Your task to perform on an android device: open chrome privacy settings Image 0: 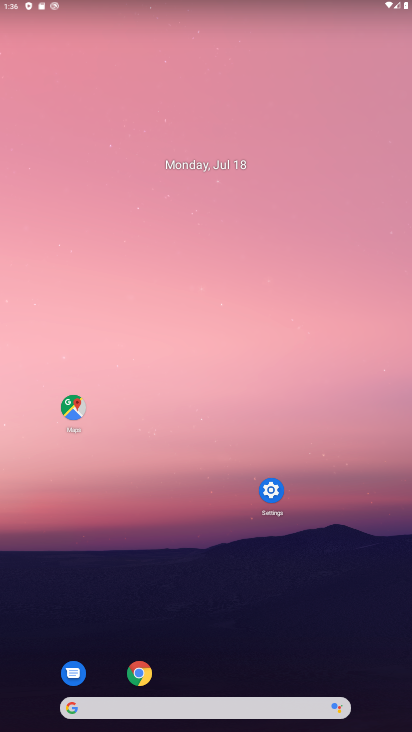
Step 0: click (276, 508)
Your task to perform on an android device: open chrome privacy settings Image 1: 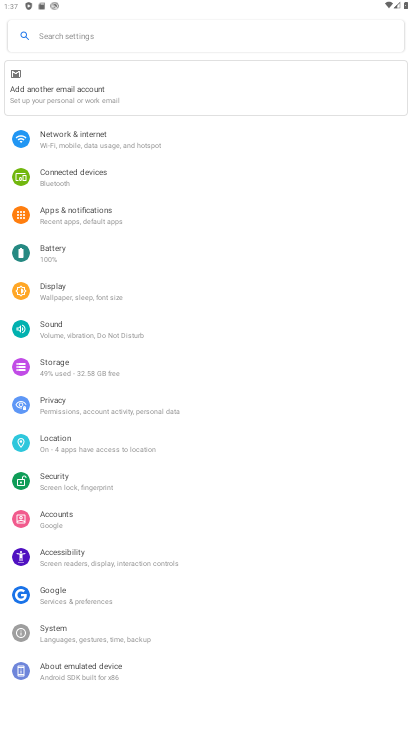
Step 1: press home button
Your task to perform on an android device: open chrome privacy settings Image 2: 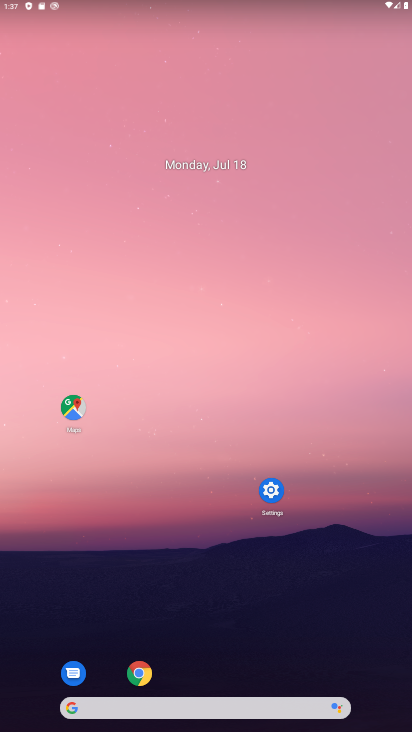
Step 2: click (138, 677)
Your task to perform on an android device: open chrome privacy settings Image 3: 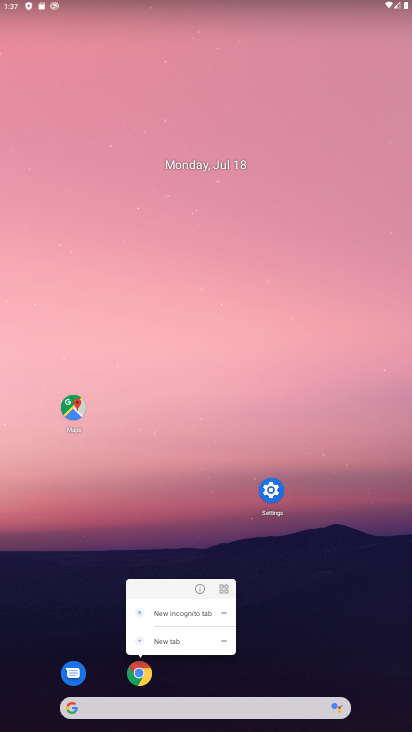
Step 3: click (144, 666)
Your task to perform on an android device: open chrome privacy settings Image 4: 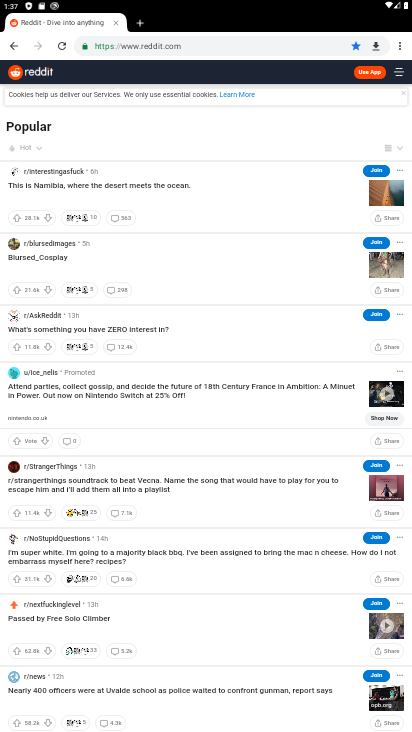
Step 4: click (400, 48)
Your task to perform on an android device: open chrome privacy settings Image 5: 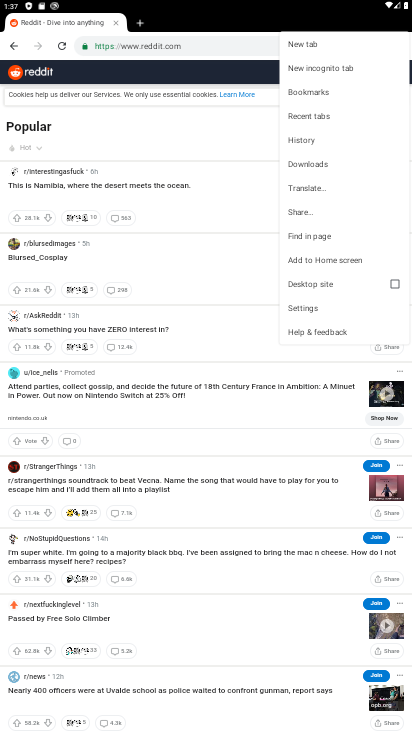
Step 5: click (310, 307)
Your task to perform on an android device: open chrome privacy settings Image 6: 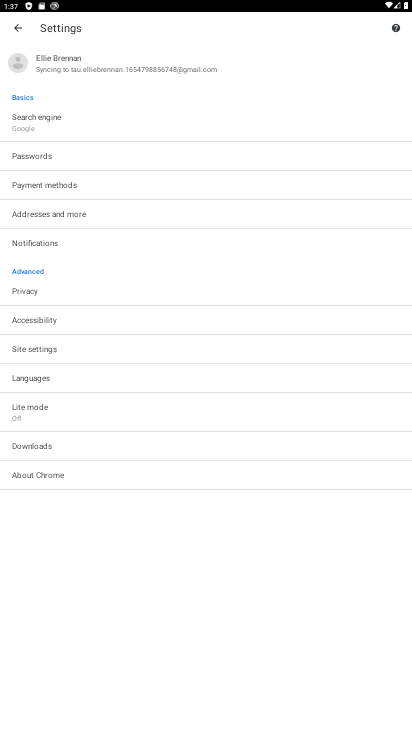
Step 6: click (18, 290)
Your task to perform on an android device: open chrome privacy settings Image 7: 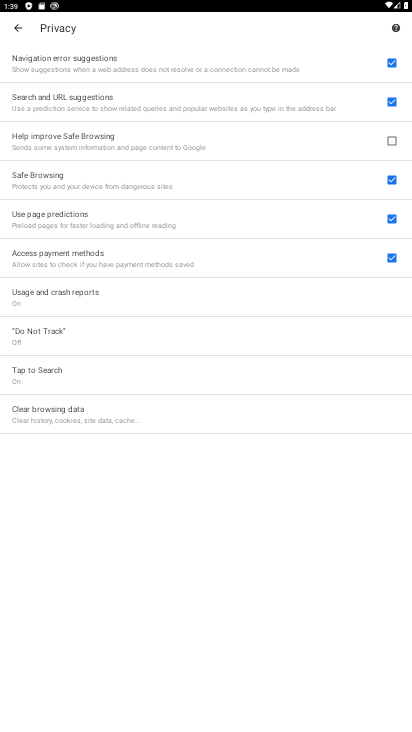
Step 7: task complete